Your task to perform on an android device: change the clock style Image 0: 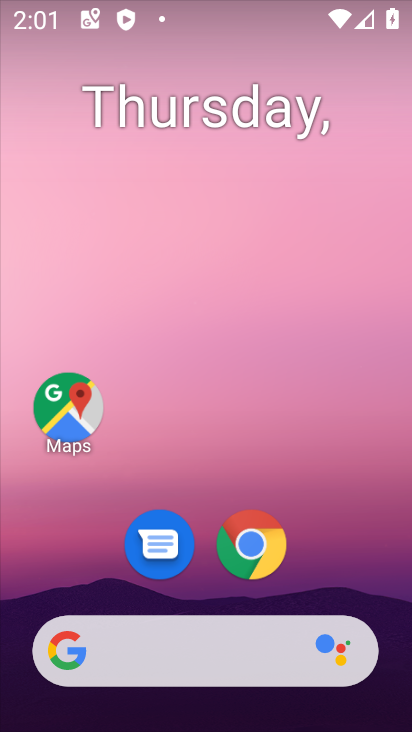
Step 0: drag from (356, 572) to (303, 139)
Your task to perform on an android device: change the clock style Image 1: 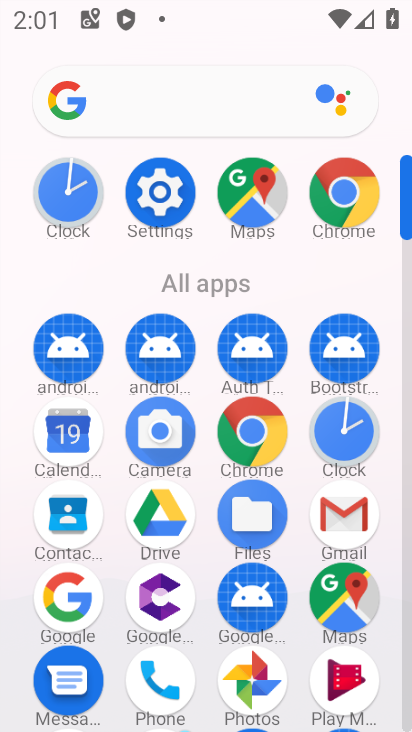
Step 1: click (347, 421)
Your task to perform on an android device: change the clock style Image 2: 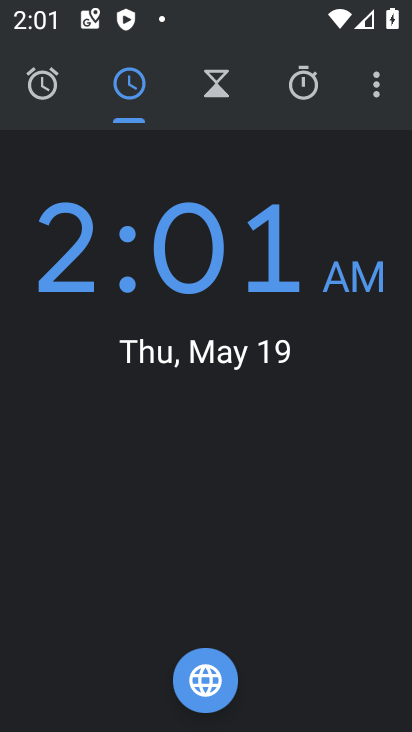
Step 2: click (349, 93)
Your task to perform on an android device: change the clock style Image 3: 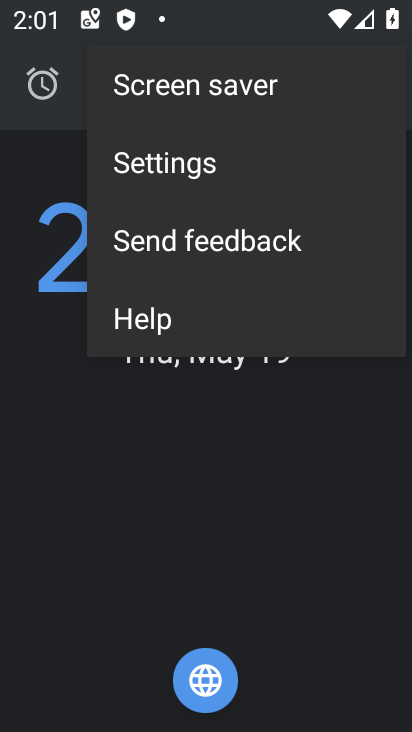
Step 3: click (216, 155)
Your task to perform on an android device: change the clock style Image 4: 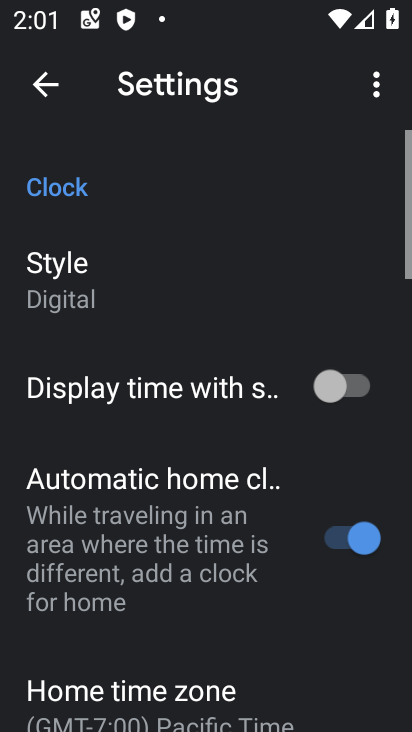
Step 4: click (99, 268)
Your task to perform on an android device: change the clock style Image 5: 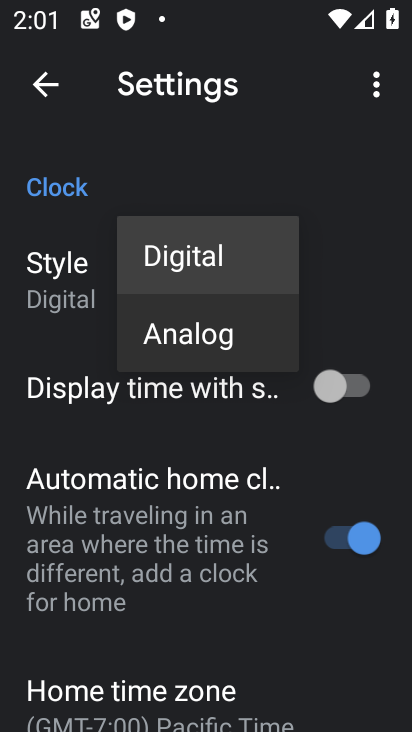
Step 5: click (220, 346)
Your task to perform on an android device: change the clock style Image 6: 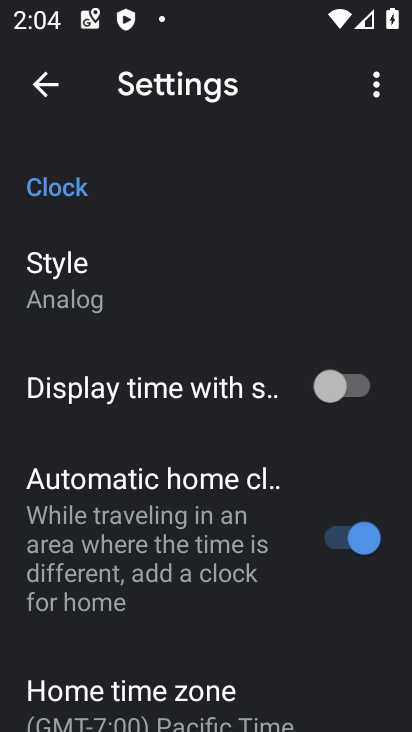
Step 6: task complete